Your task to perform on an android device: create a new album in the google photos Image 0: 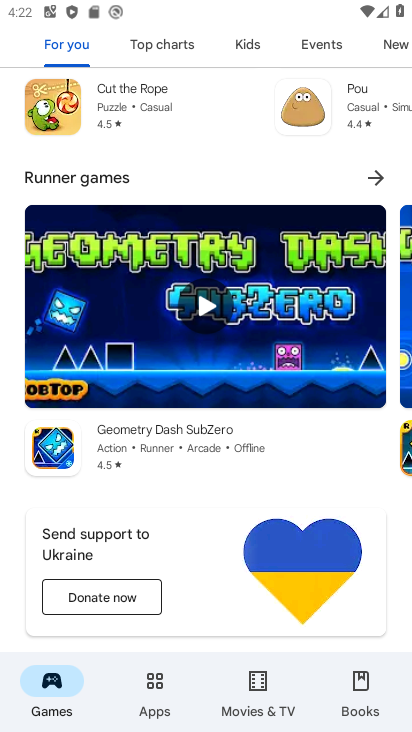
Step 0: press home button
Your task to perform on an android device: create a new album in the google photos Image 1: 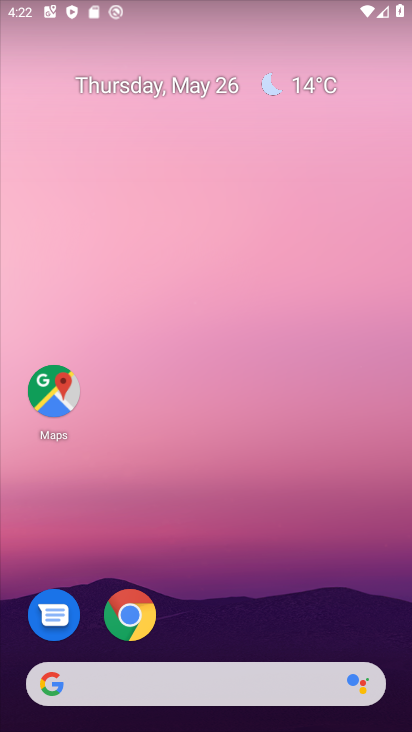
Step 1: drag from (240, 590) to (262, 170)
Your task to perform on an android device: create a new album in the google photos Image 2: 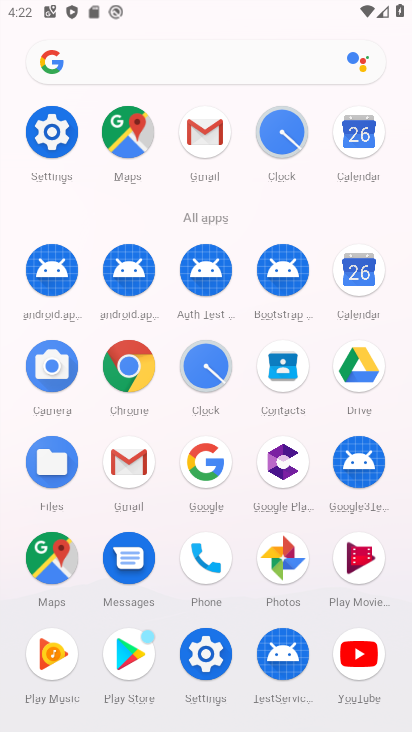
Step 2: click (285, 558)
Your task to perform on an android device: create a new album in the google photos Image 3: 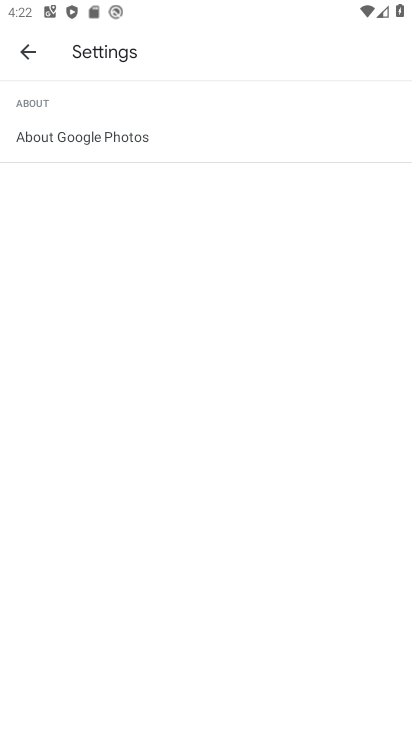
Step 3: click (30, 62)
Your task to perform on an android device: create a new album in the google photos Image 4: 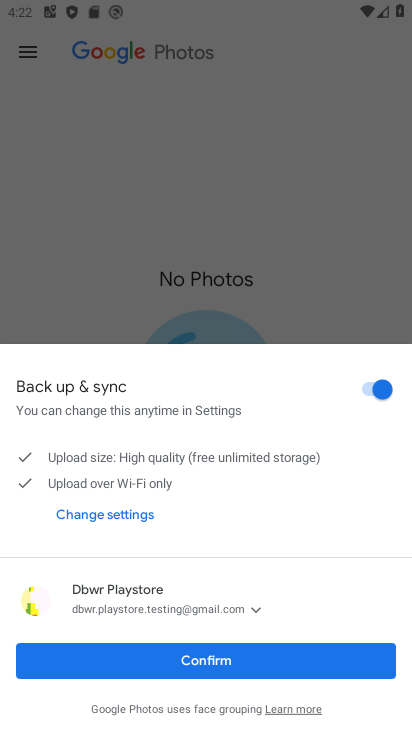
Step 4: click (219, 664)
Your task to perform on an android device: create a new album in the google photos Image 5: 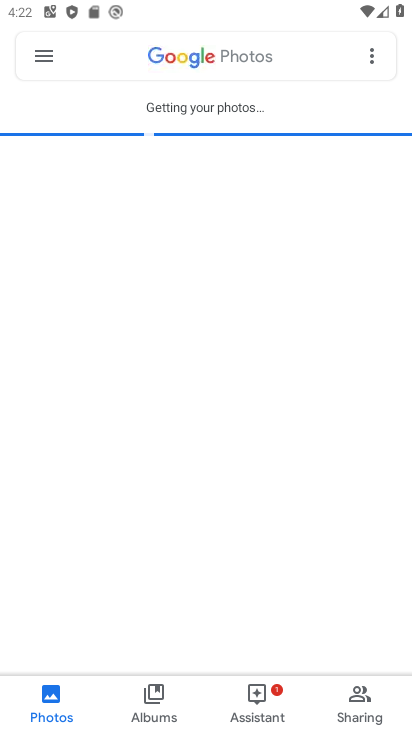
Step 5: drag from (255, 699) to (163, 692)
Your task to perform on an android device: create a new album in the google photos Image 6: 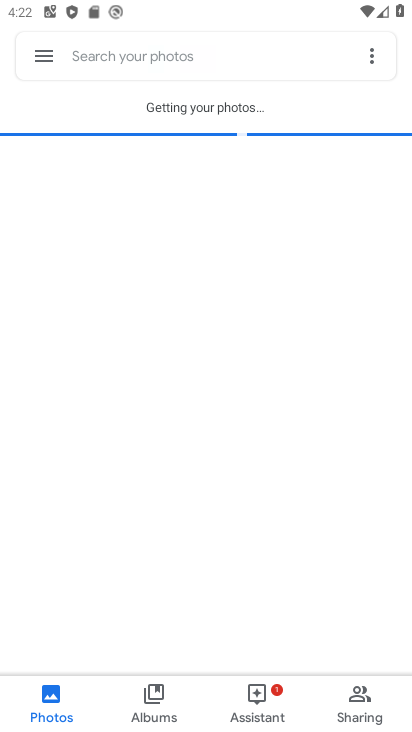
Step 6: click (161, 692)
Your task to perform on an android device: create a new album in the google photos Image 7: 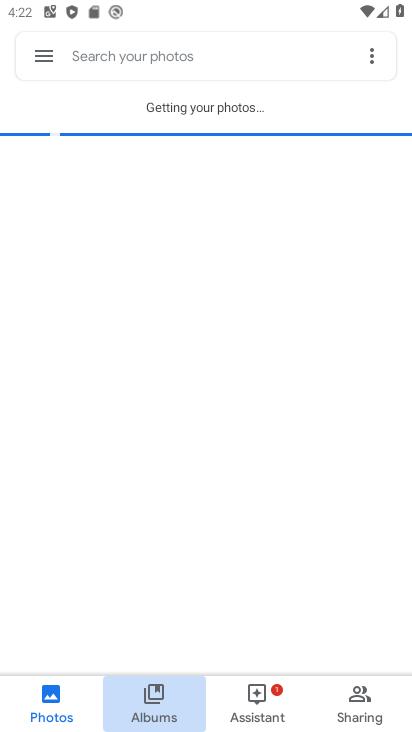
Step 7: click (161, 692)
Your task to perform on an android device: create a new album in the google photos Image 8: 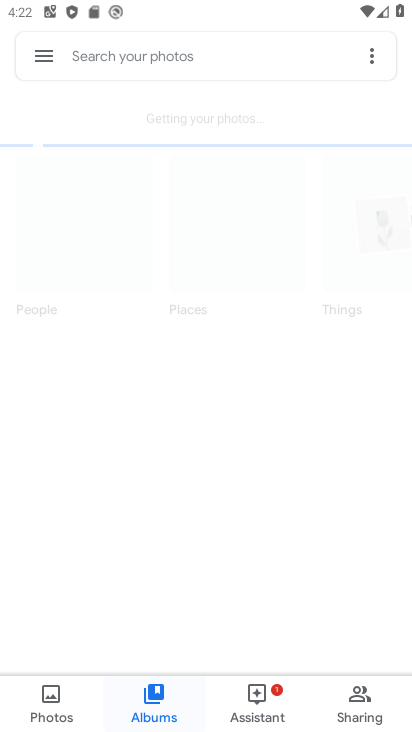
Step 8: click (161, 692)
Your task to perform on an android device: create a new album in the google photos Image 9: 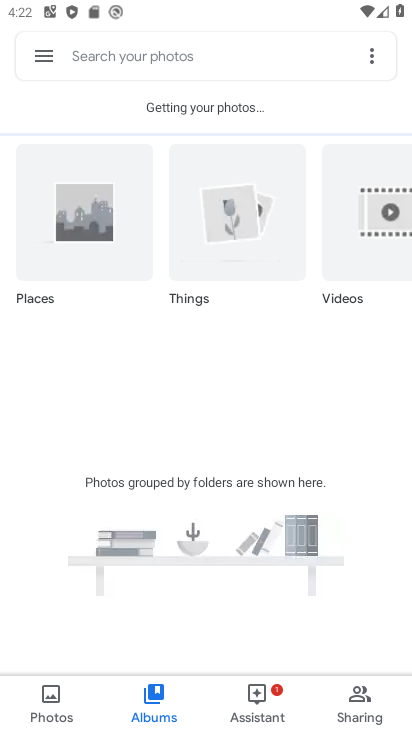
Step 9: click (353, 48)
Your task to perform on an android device: create a new album in the google photos Image 10: 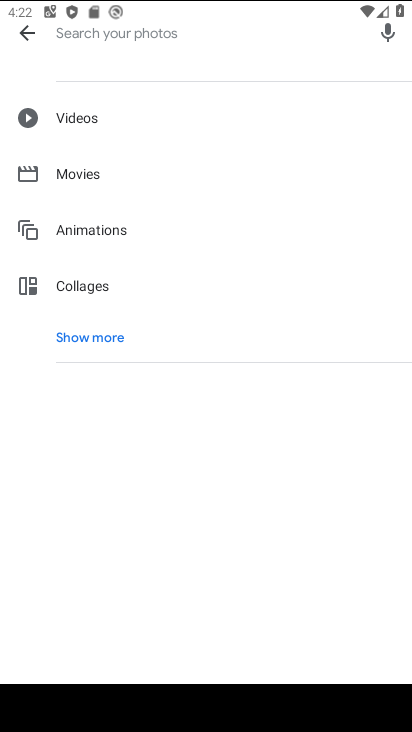
Step 10: click (20, 44)
Your task to perform on an android device: create a new album in the google photos Image 11: 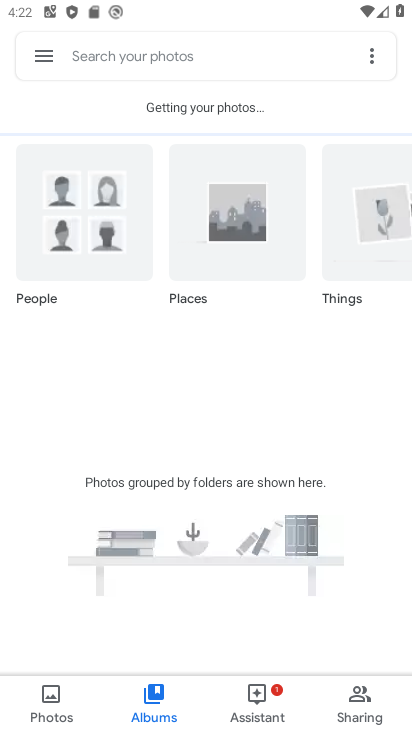
Step 11: click (379, 53)
Your task to perform on an android device: create a new album in the google photos Image 12: 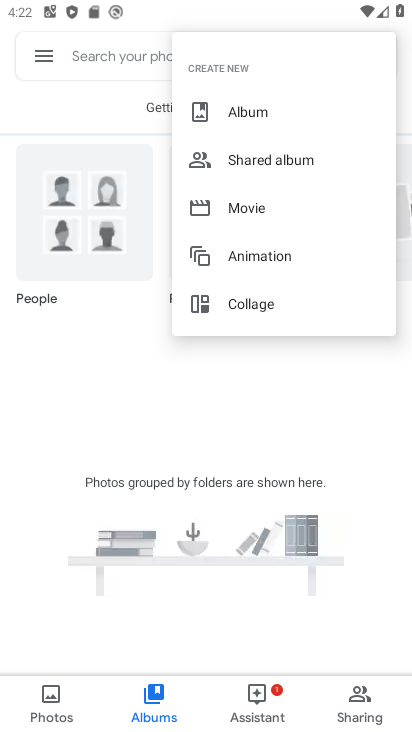
Step 12: click (251, 115)
Your task to perform on an android device: create a new album in the google photos Image 13: 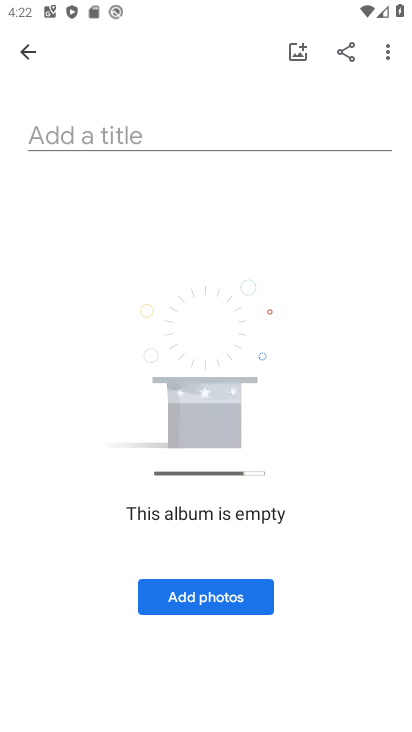
Step 13: click (274, 133)
Your task to perform on an android device: create a new album in the google photos Image 14: 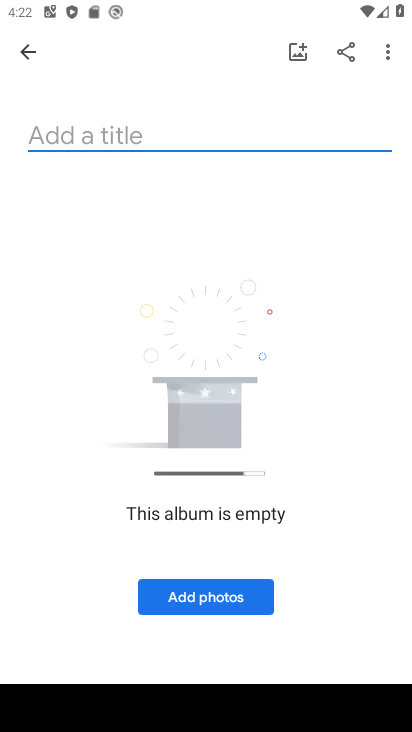
Step 14: type "public opinion"
Your task to perform on an android device: create a new album in the google photos Image 15: 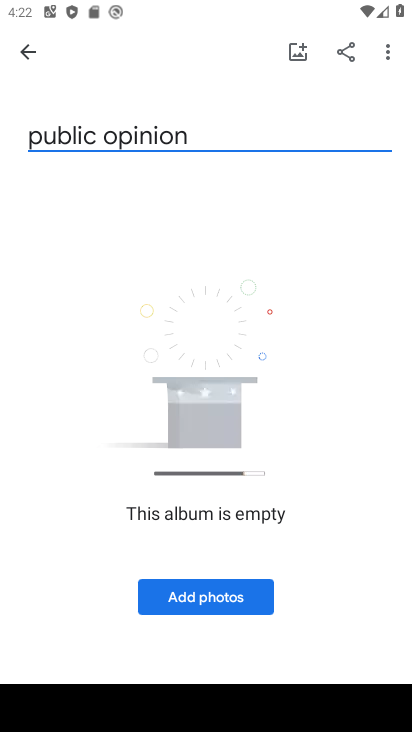
Step 15: click (205, 596)
Your task to perform on an android device: create a new album in the google photos Image 16: 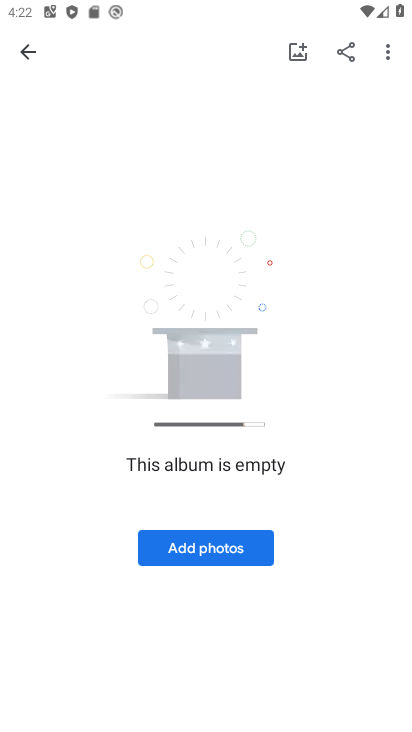
Step 16: click (186, 546)
Your task to perform on an android device: create a new album in the google photos Image 17: 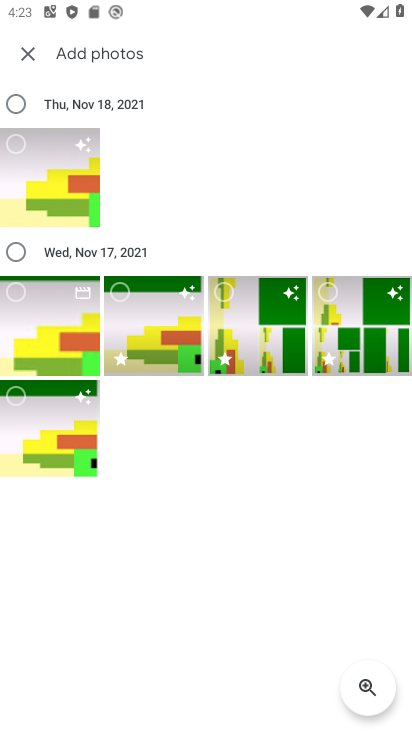
Step 17: click (64, 171)
Your task to perform on an android device: create a new album in the google photos Image 18: 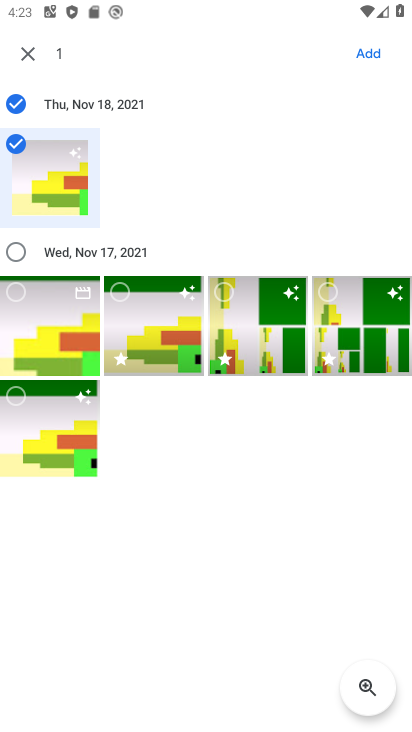
Step 18: click (369, 45)
Your task to perform on an android device: create a new album in the google photos Image 19: 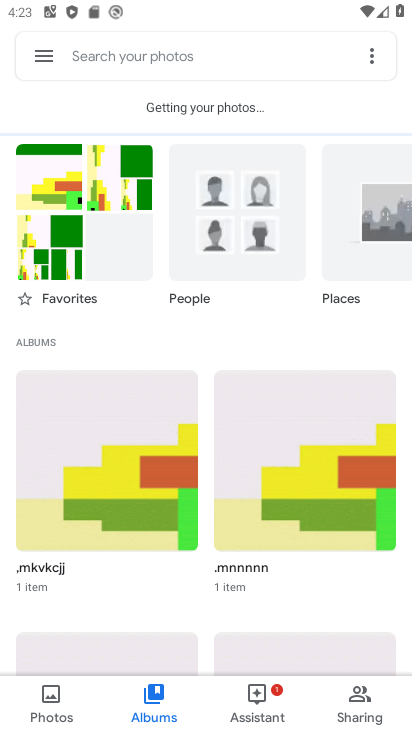
Step 19: task complete